Your task to perform on an android device: Open Yahoo.com Image 0: 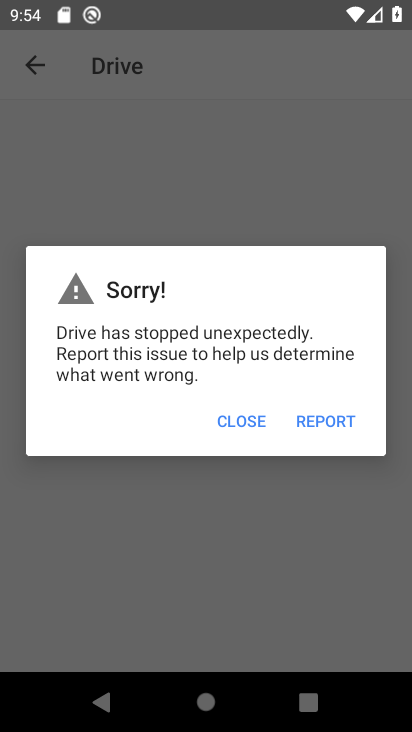
Step 0: press home button
Your task to perform on an android device: Open Yahoo.com Image 1: 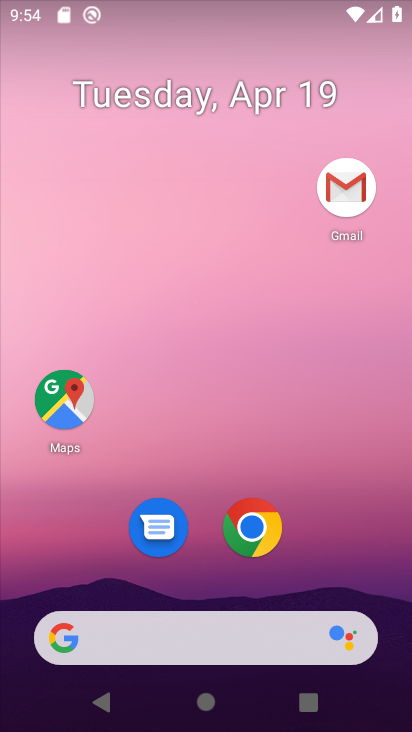
Step 1: drag from (320, 538) to (300, 134)
Your task to perform on an android device: Open Yahoo.com Image 2: 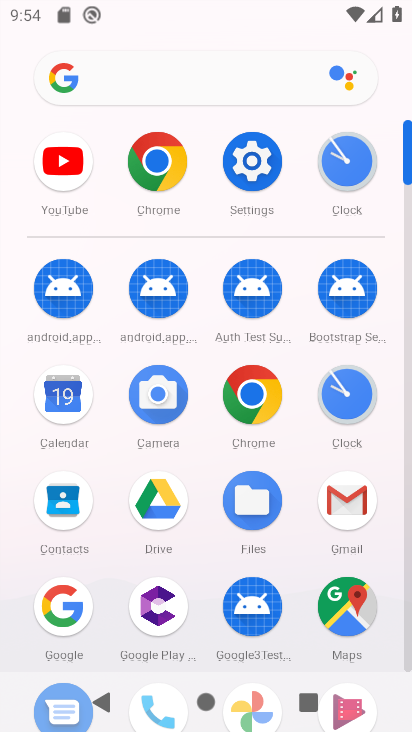
Step 2: click (256, 402)
Your task to perform on an android device: Open Yahoo.com Image 3: 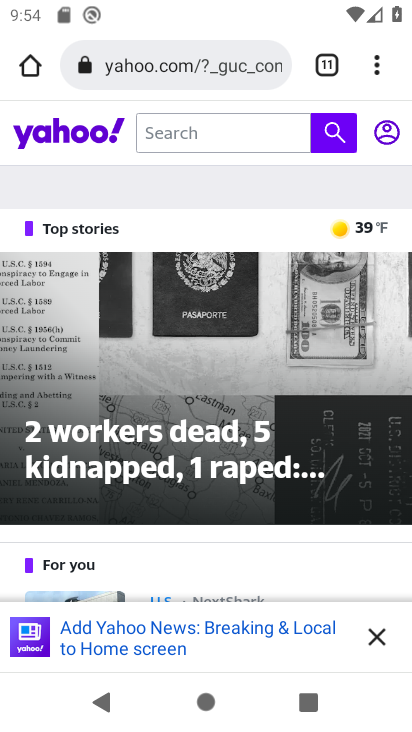
Step 3: task complete